Your task to perform on an android device: Open internet settings Image 0: 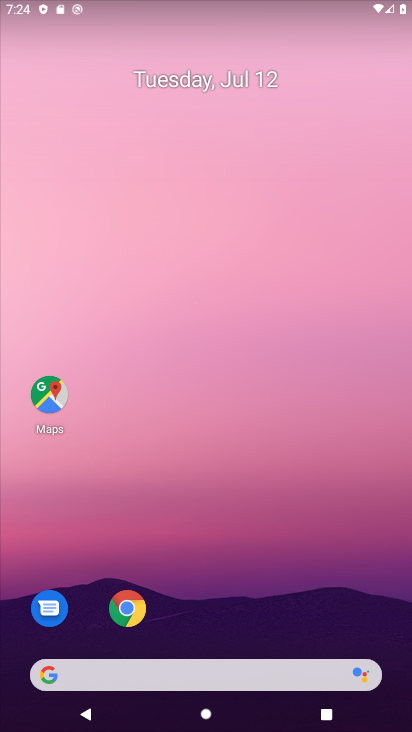
Step 0: drag from (250, 669) to (335, 302)
Your task to perform on an android device: Open internet settings Image 1: 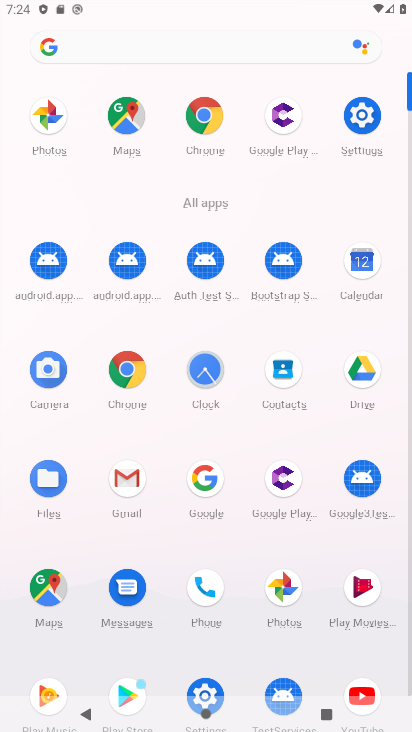
Step 1: click (364, 108)
Your task to perform on an android device: Open internet settings Image 2: 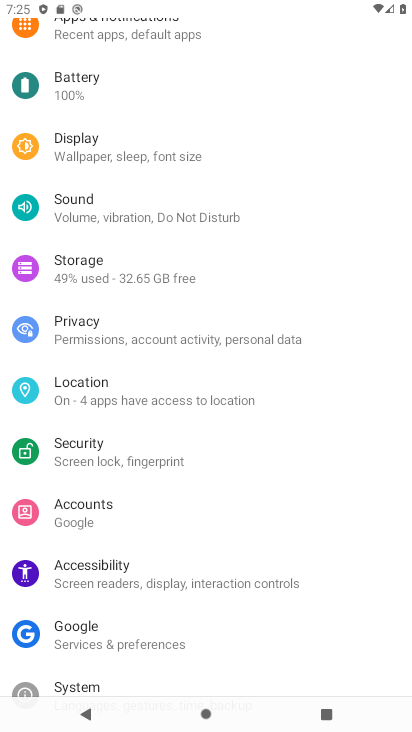
Step 2: drag from (255, 70) to (154, 409)
Your task to perform on an android device: Open internet settings Image 3: 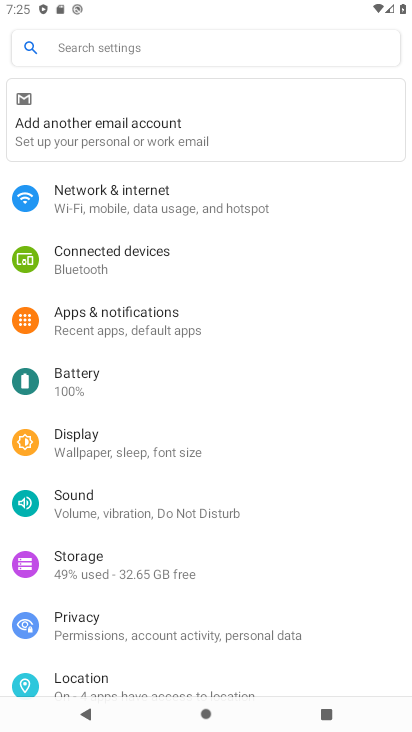
Step 3: click (185, 203)
Your task to perform on an android device: Open internet settings Image 4: 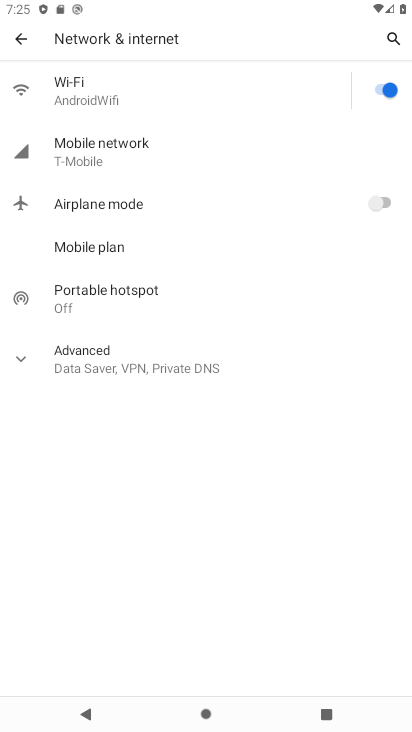
Step 4: task complete